Your task to perform on an android device: allow notifications from all sites in the chrome app Image 0: 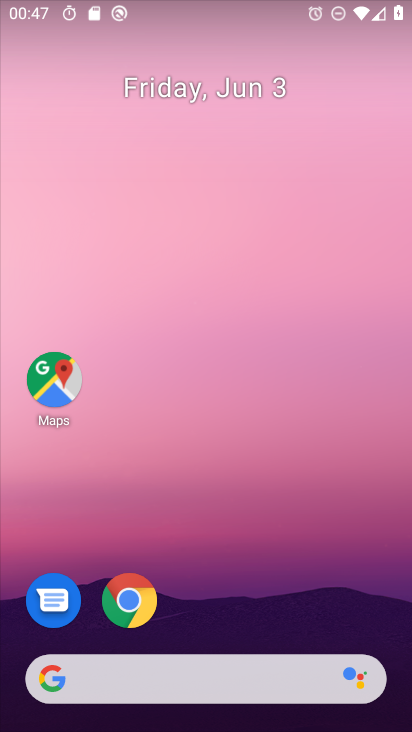
Step 0: drag from (289, 580) to (315, 86)
Your task to perform on an android device: allow notifications from all sites in the chrome app Image 1: 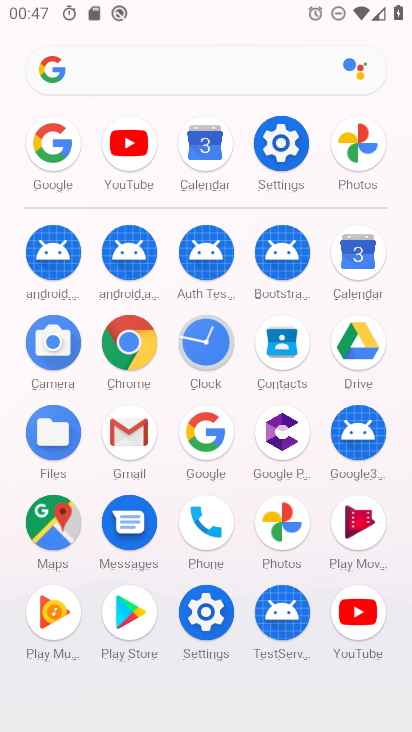
Step 1: click (126, 337)
Your task to perform on an android device: allow notifications from all sites in the chrome app Image 2: 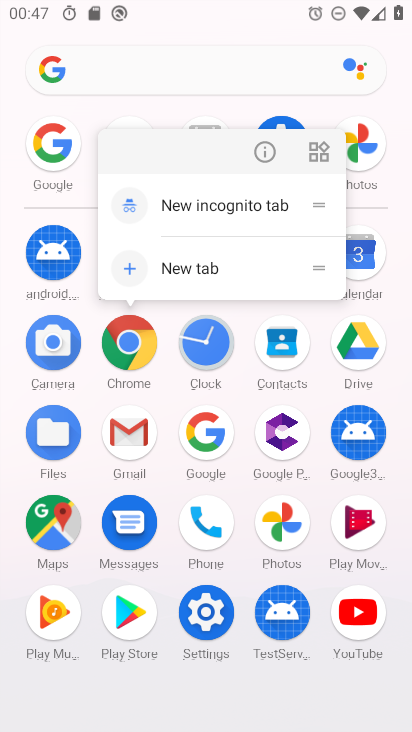
Step 2: click (127, 341)
Your task to perform on an android device: allow notifications from all sites in the chrome app Image 3: 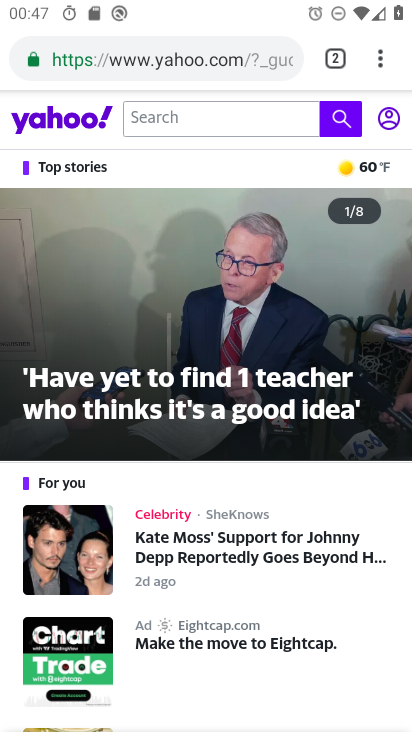
Step 3: click (375, 59)
Your task to perform on an android device: allow notifications from all sites in the chrome app Image 4: 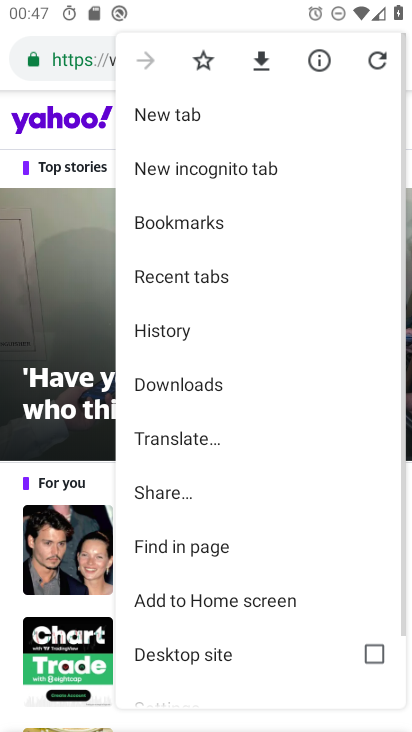
Step 4: drag from (270, 582) to (301, 184)
Your task to perform on an android device: allow notifications from all sites in the chrome app Image 5: 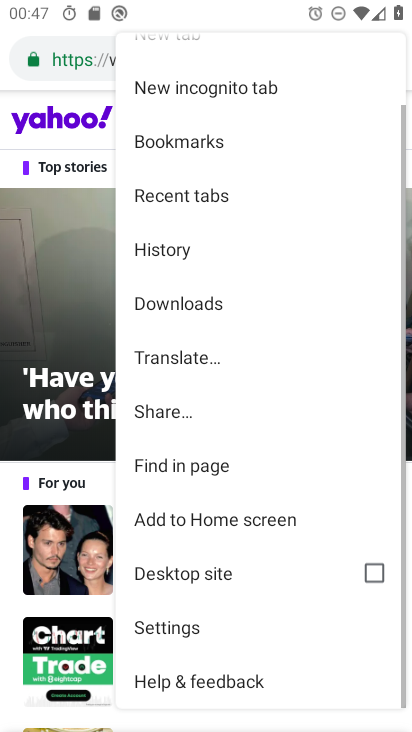
Step 5: click (234, 621)
Your task to perform on an android device: allow notifications from all sites in the chrome app Image 6: 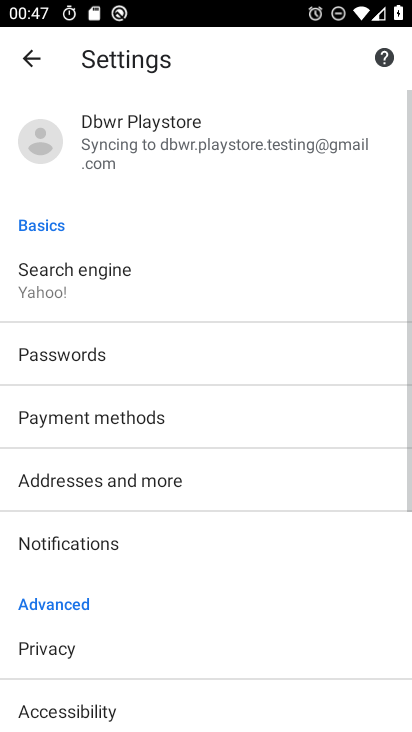
Step 6: drag from (135, 654) to (121, 268)
Your task to perform on an android device: allow notifications from all sites in the chrome app Image 7: 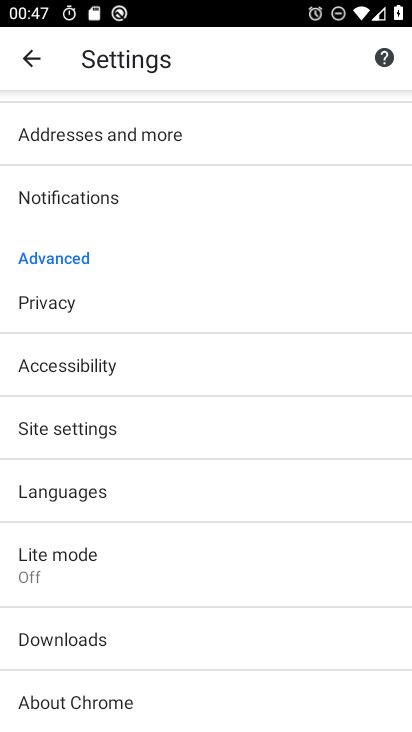
Step 7: click (119, 431)
Your task to perform on an android device: allow notifications from all sites in the chrome app Image 8: 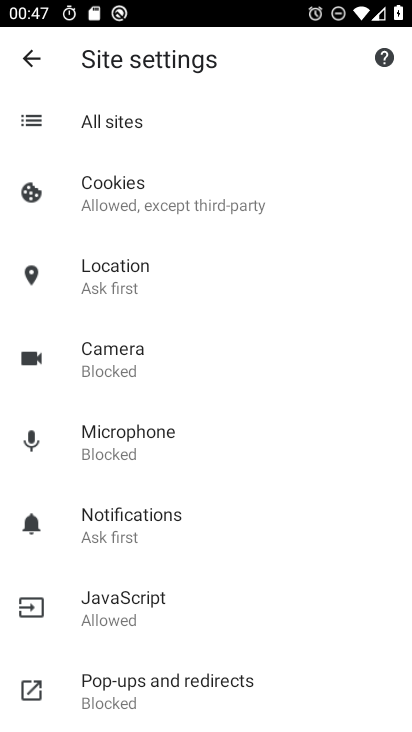
Step 8: click (160, 531)
Your task to perform on an android device: allow notifications from all sites in the chrome app Image 9: 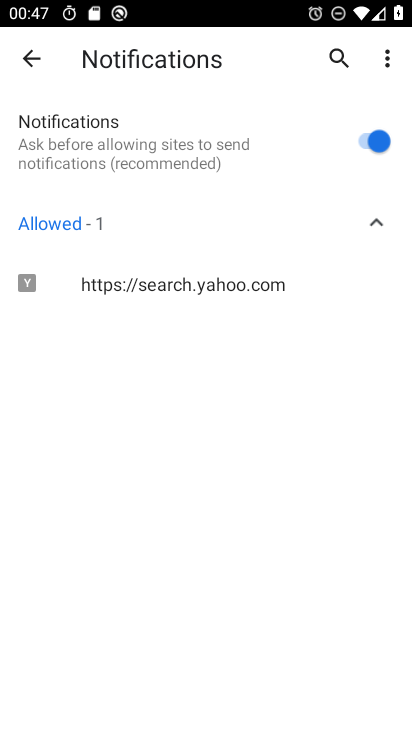
Step 9: click (371, 139)
Your task to perform on an android device: allow notifications from all sites in the chrome app Image 10: 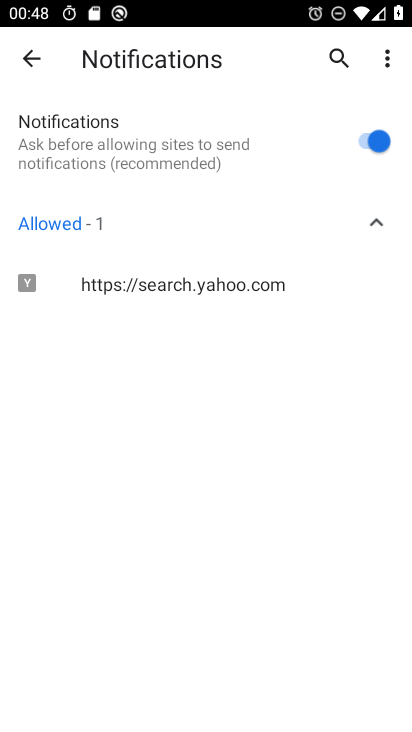
Step 10: task complete